Your task to perform on an android device: Open calendar and show me the second week of next month Image 0: 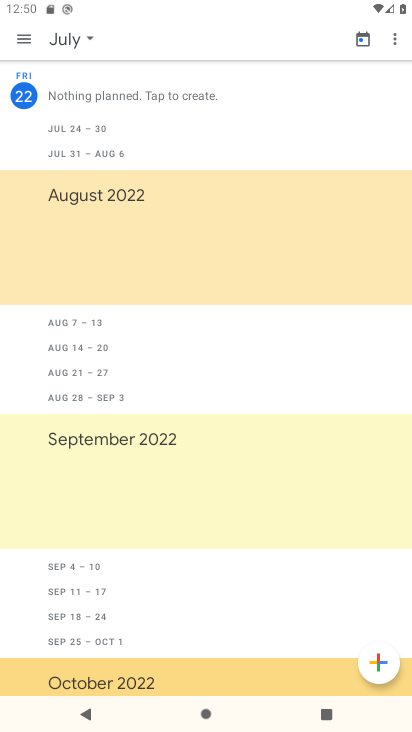
Step 0: press home button
Your task to perform on an android device: Open calendar and show me the second week of next month Image 1: 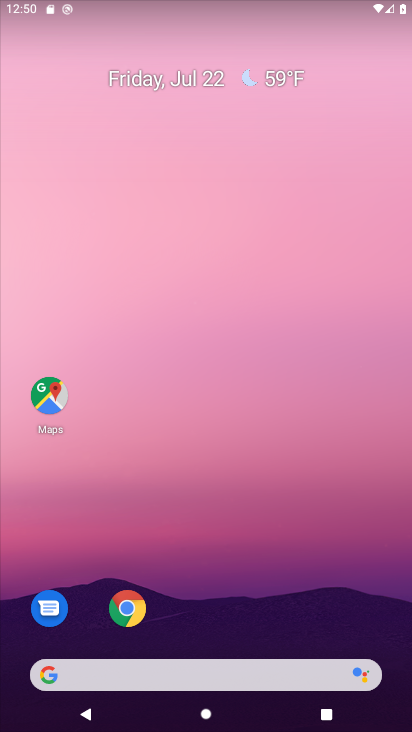
Step 1: drag from (286, 536) to (315, 49)
Your task to perform on an android device: Open calendar and show me the second week of next month Image 2: 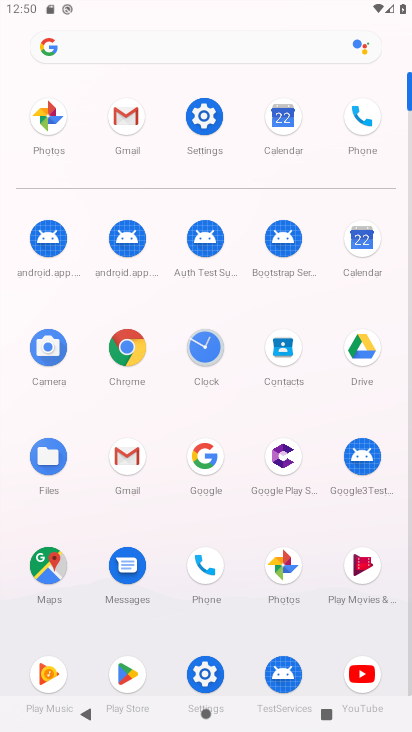
Step 2: click (354, 242)
Your task to perform on an android device: Open calendar and show me the second week of next month Image 3: 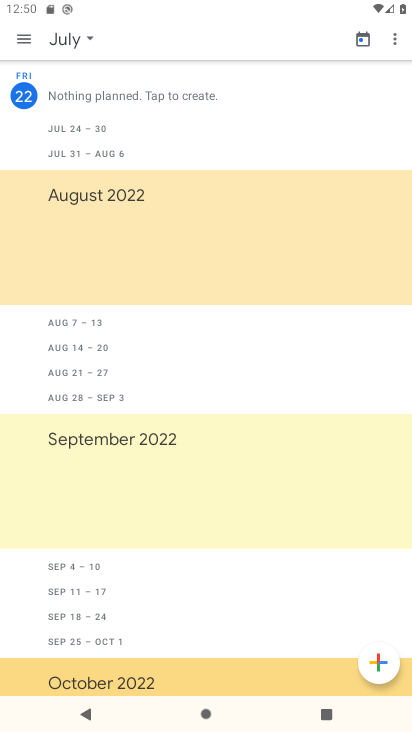
Step 3: click (28, 37)
Your task to perform on an android device: Open calendar and show me the second week of next month Image 4: 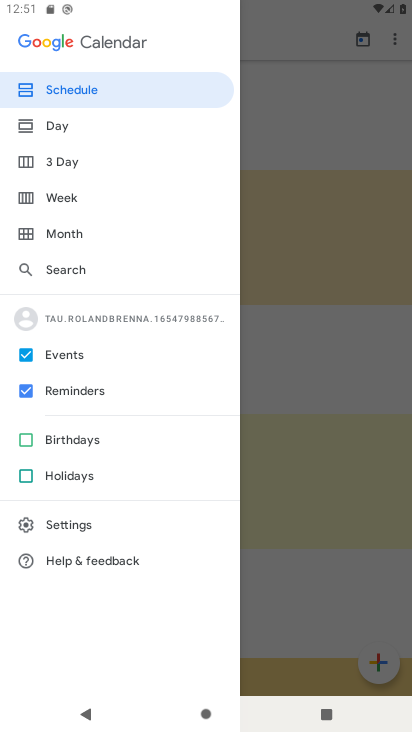
Step 4: click (55, 199)
Your task to perform on an android device: Open calendar and show me the second week of next month Image 5: 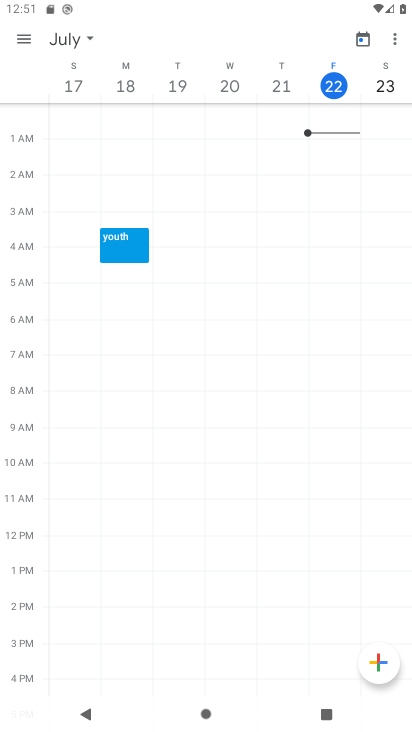
Step 5: task complete